Your task to perform on an android device: change the clock style Image 0: 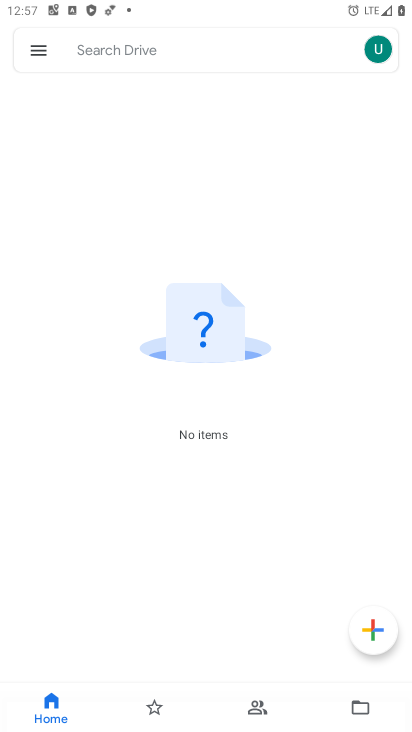
Step 0: press home button
Your task to perform on an android device: change the clock style Image 1: 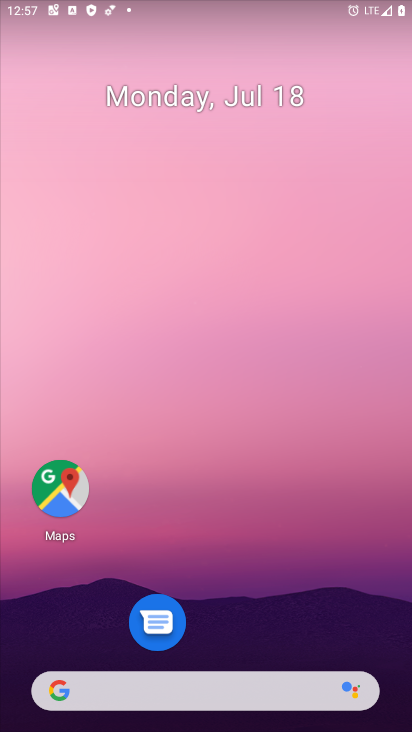
Step 1: drag from (213, 379) to (268, 22)
Your task to perform on an android device: change the clock style Image 2: 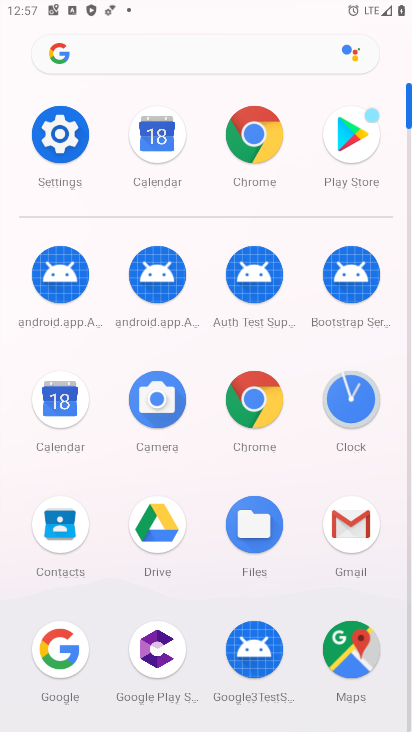
Step 2: click (338, 407)
Your task to perform on an android device: change the clock style Image 3: 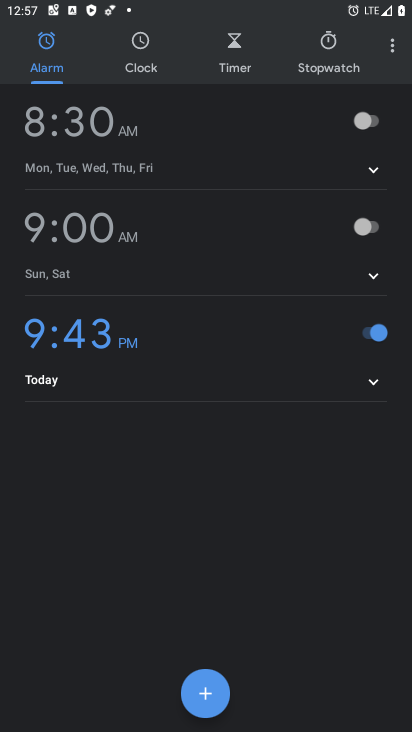
Step 3: click (394, 44)
Your task to perform on an android device: change the clock style Image 4: 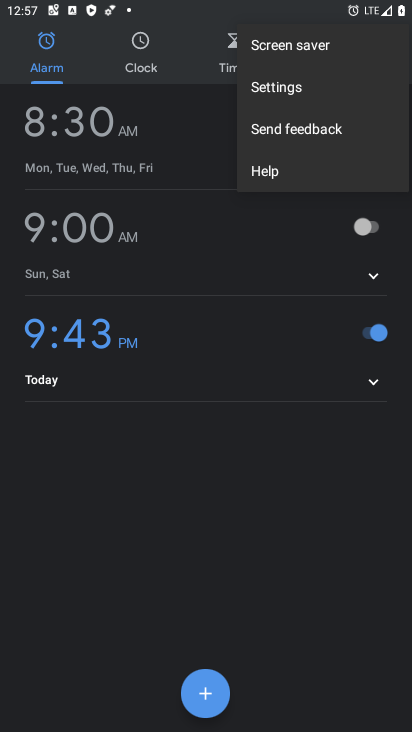
Step 4: click (297, 94)
Your task to perform on an android device: change the clock style Image 5: 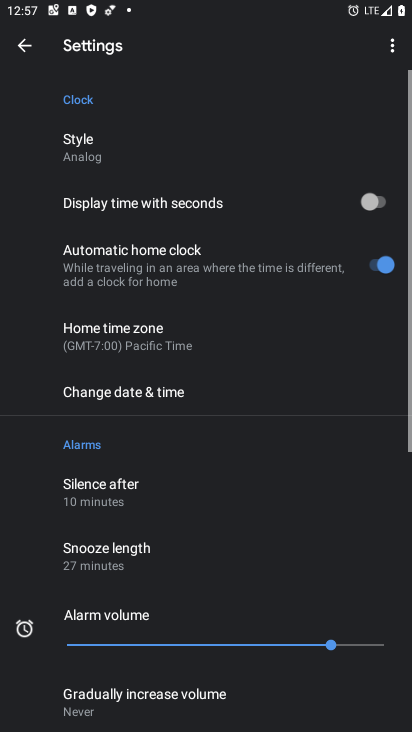
Step 5: click (101, 164)
Your task to perform on an android device: change the clock style Image 6: 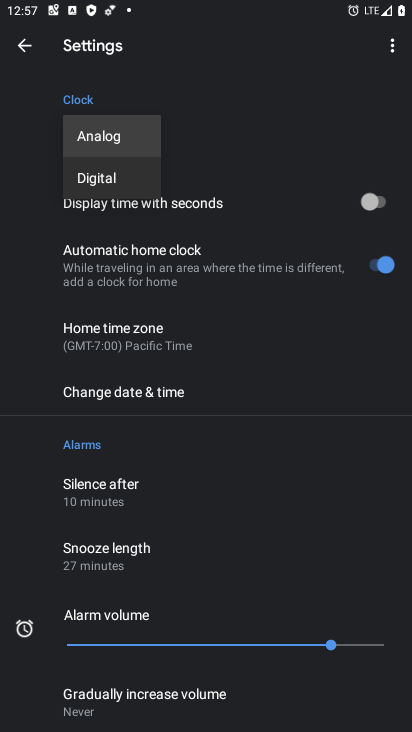
Step 6: click (120, 177)
Your task to perform on an android device: change the clock style Image 7: 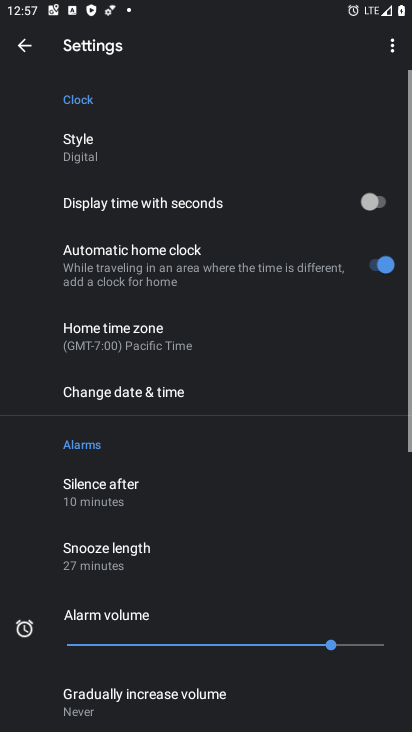
Step 7: task complete